Your task to perform on an android device: open a new tab in the chrome app Image 0: 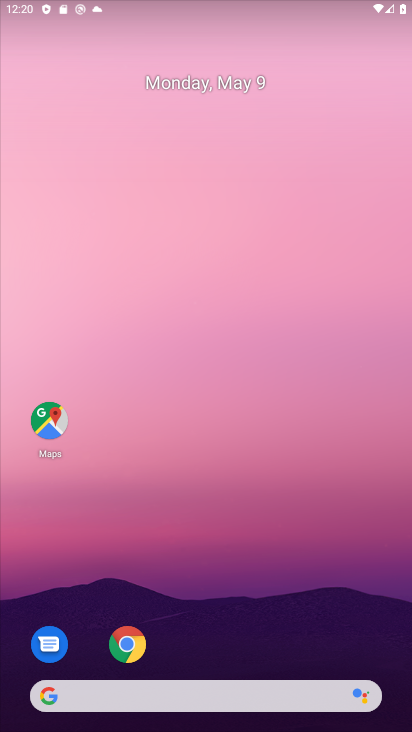
Step 0: drag from (261, 450) to (130, 86)
Your task to perform on an android device: open a new tab in the chrome app Image 1: 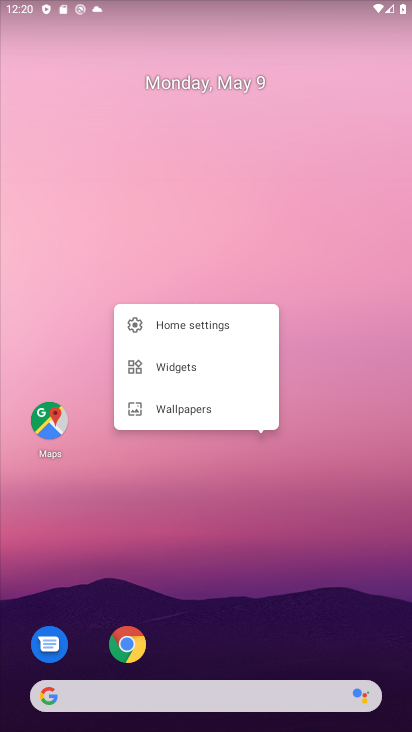
Step 1: drag from (291, 616) to (77, 28)
Your task to perform on an android device: open a new tab in the chrome app Image 2: 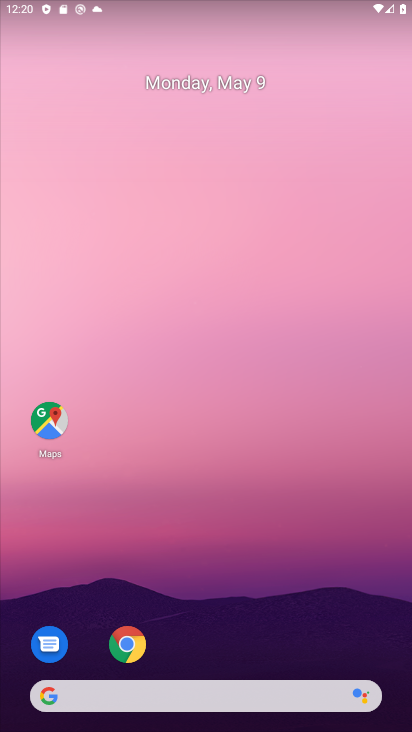
Step 2: drag from (284, 298) to (164, 0)
Your task to perform on an android device: open a new tab in the chrome app Image 3: 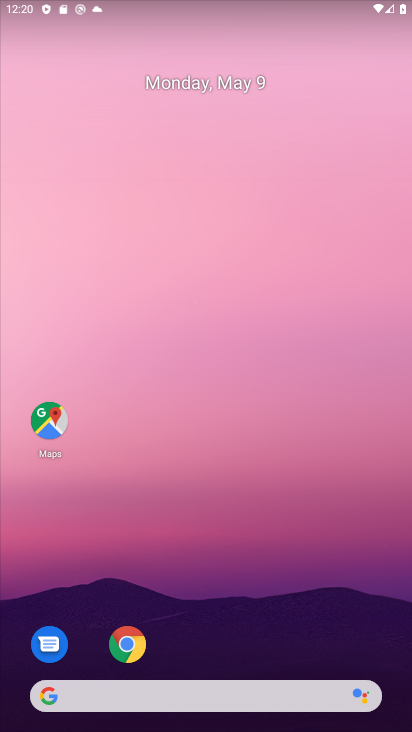
Step 3: drag from (214, 547) to (136, 13)
Your task to perform on an android device: open a new tab in the chrome app Image 4: 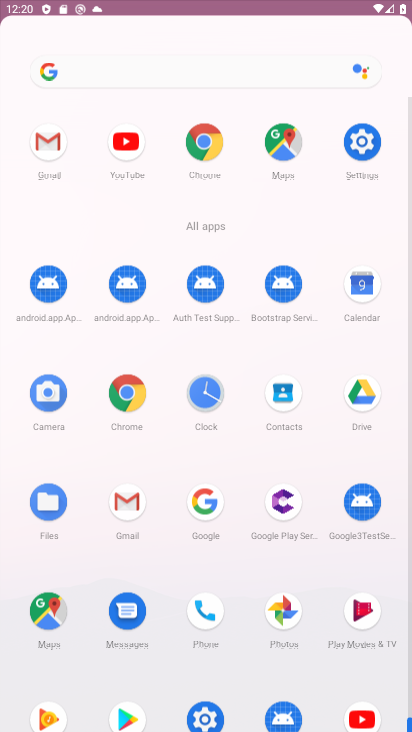
Step 4: drag from (203, 497) to (89, 13)
Your task to perform on an android device: open a new tab in the chrome app Image 5: 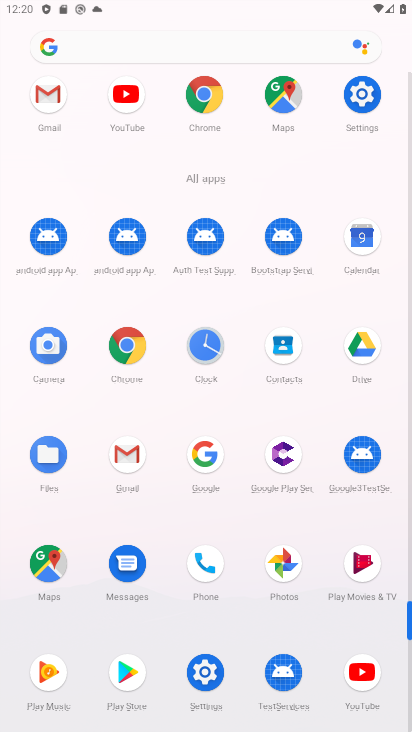
Step 5: click (209, 87)
Your task to perform on an android device: open a new tab in the chrome app Image 6: 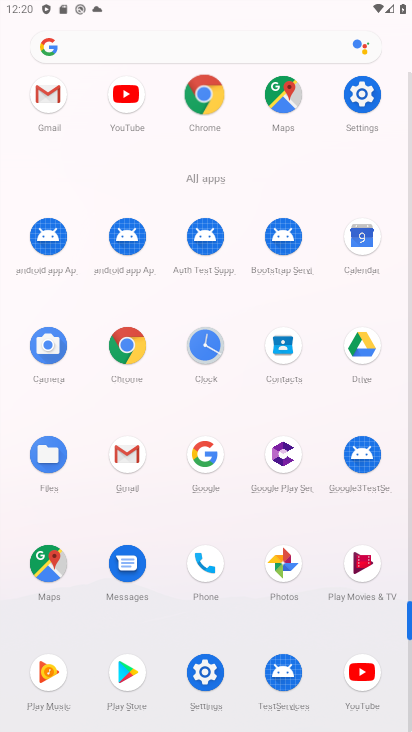
Step 6: click (209, 87)
Your task to perform on an android device: open a new tab in the chrome app Image 7: 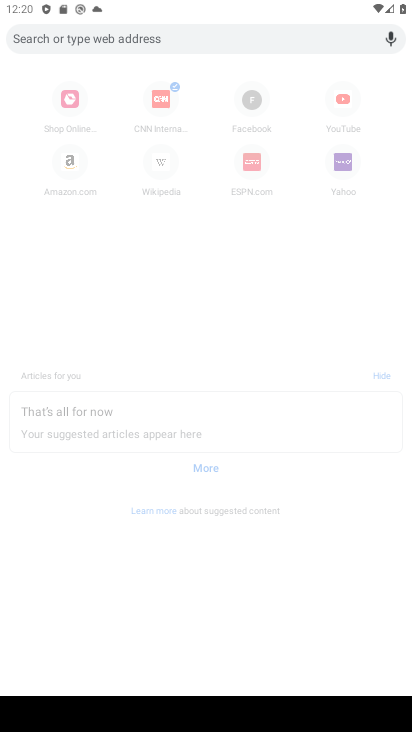
Step 7: click (38, 39)
Your task to perform on an android device: open a new tab in the chrome app Image 8: 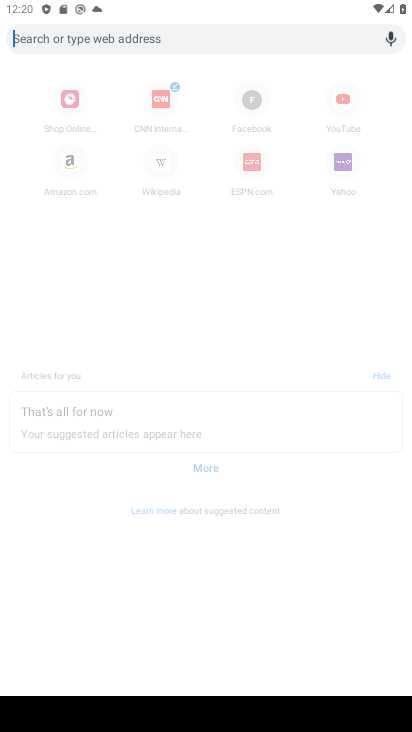
Step 8: click (27, 38)
Your task to perform on an android device: open a new tab in the chrome app Image 9: 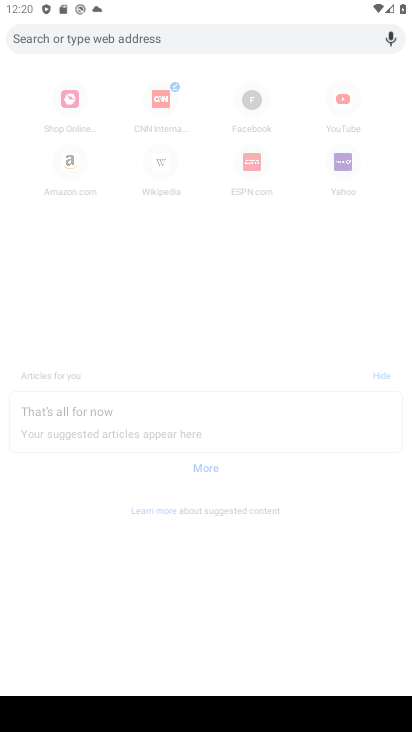
Step 9: click (27, 38)
Your task to perform on an android device: open a new tab in the chrome app Image 10: 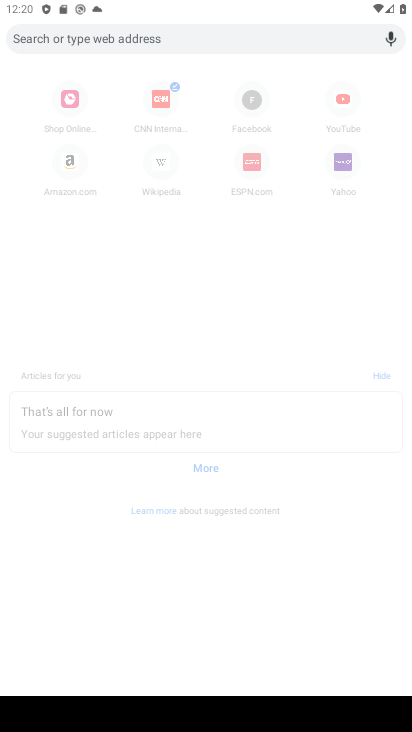
Step 10: click (27, 38)
Your task to perform on an android device: open a new tab in the chrome app Image 11: 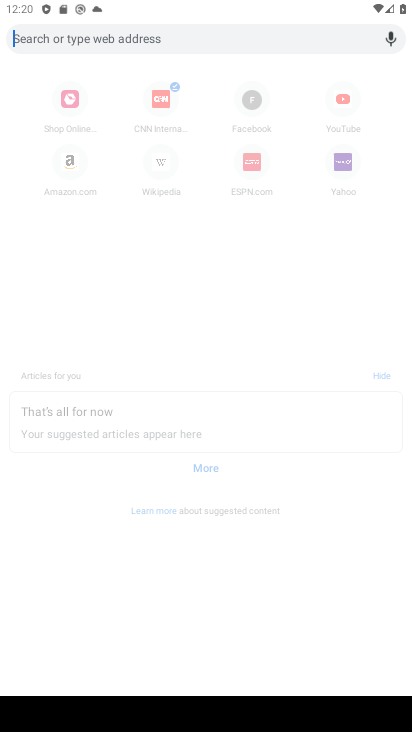
Step 11: click (27, 38)
Your task to perform on an android device: open a new tab in the chrome app Image 12: 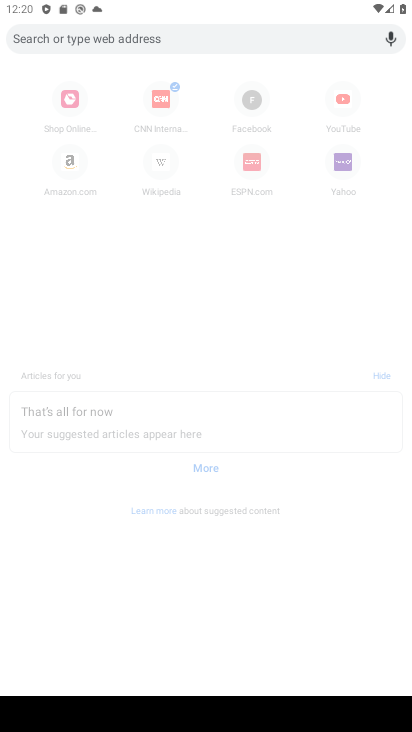
Step 12: click (27, 38)
Your task to perform on an android device: open a new tab in the chrome app Image 13: 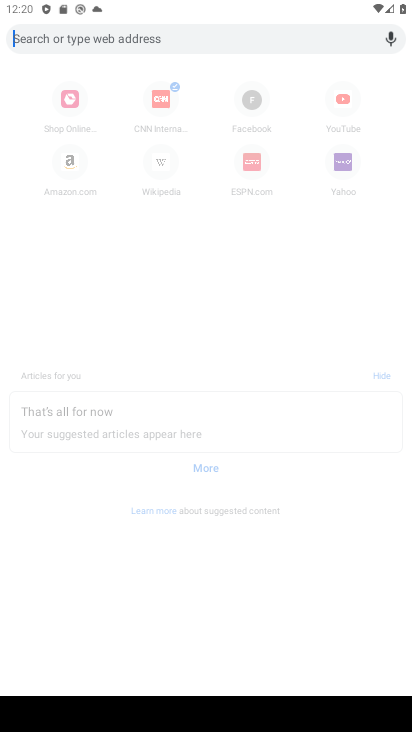
Step 13: click (27, 38)
Your task to perform on an android device: open a new tab in the chrome app Image 14: 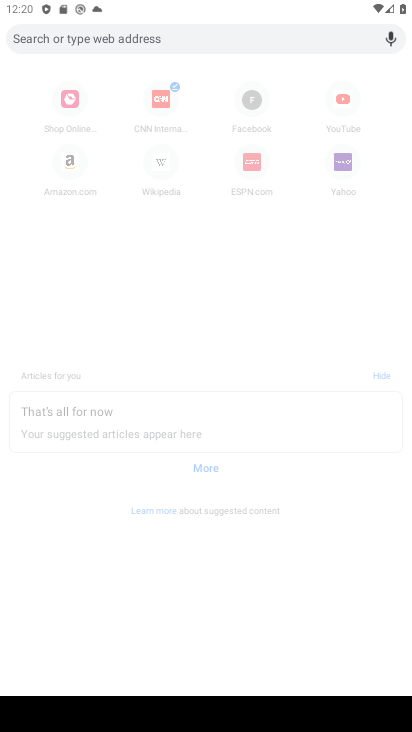
Step 14: click (27, 37)
Your task to perform on an android device: open a new tab in the chrome app Image 15: 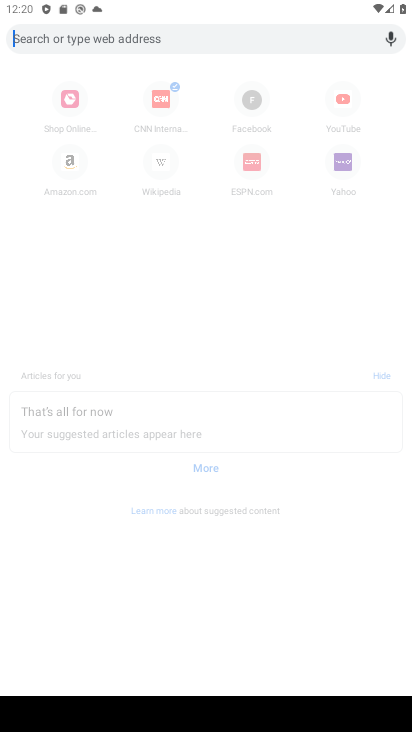
Step 15: click (115, 37)
Your task to perform on an android device: open a new tab in the chrome app Image 16: 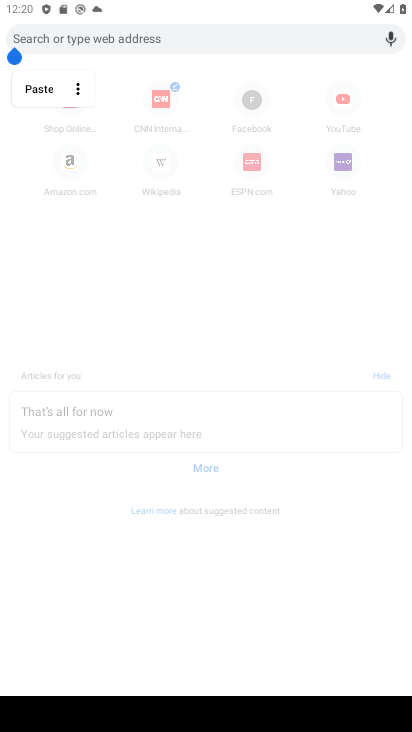
Step 16: press back button
Your task to perform on an android device: open a new tab in the chrome app Image 17: 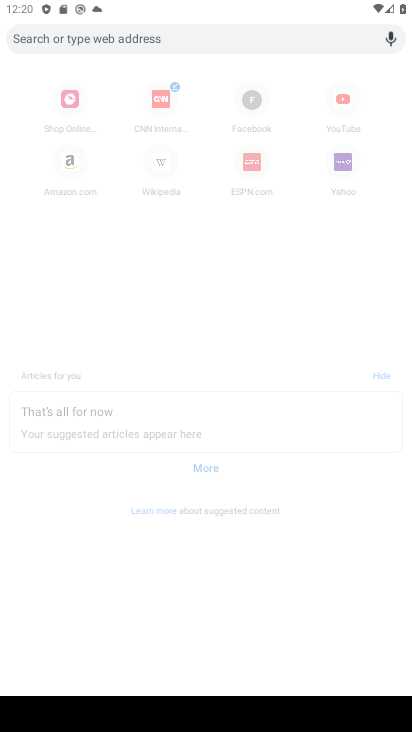
Step 17: press back button
Your task to perform on an android device: open a new tab in the chrome app Image 18: 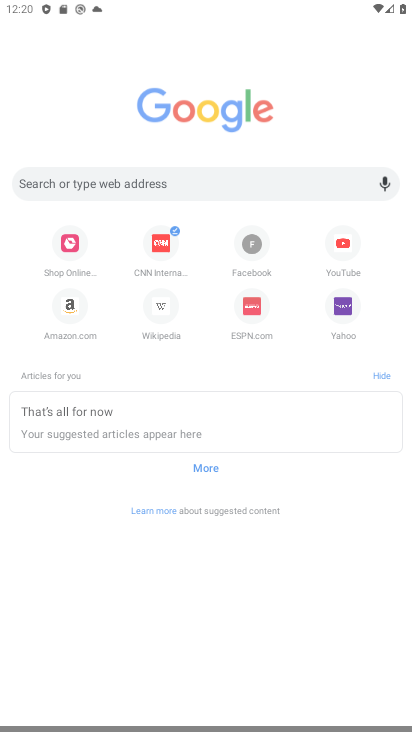
Step 18: press back button
Your task to perform on an android device: open a new tab in the chrome app Image 19: 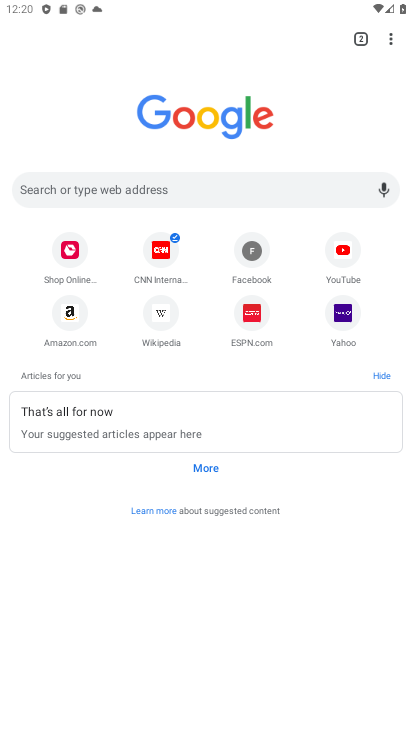
Step 19: press back button
Your task to perform on an android device: open a new tab in the chrome app Image 20: 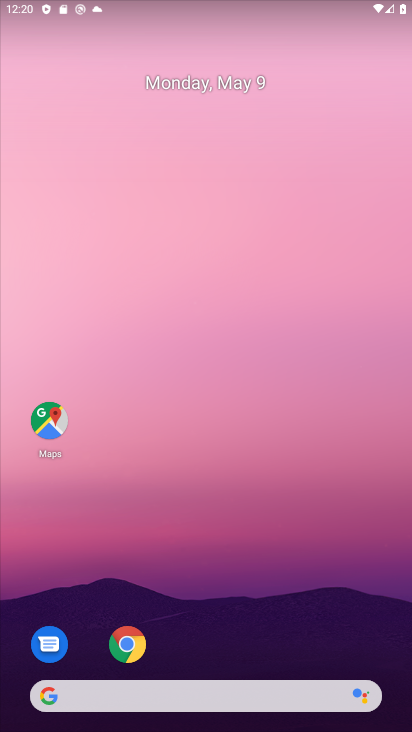
Step 20: click (392, 33)
Your task to perform on an android device: open a new tab in the chrome app Image 21: 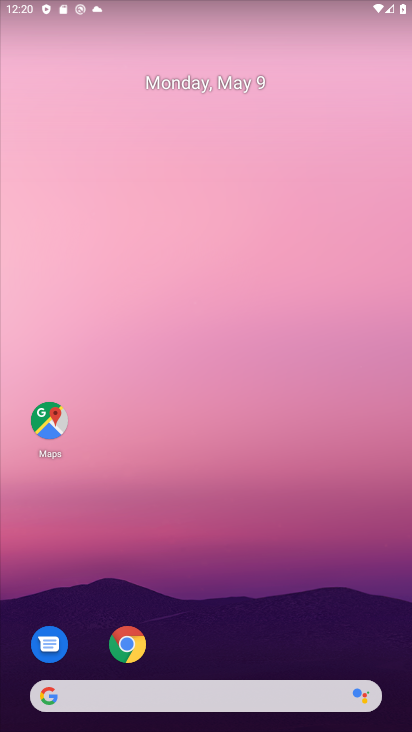
Step 21: drag from (313, 563) to (25, 8)
Your task to perform on an android device: open a new tab in the chrome app Image 22: 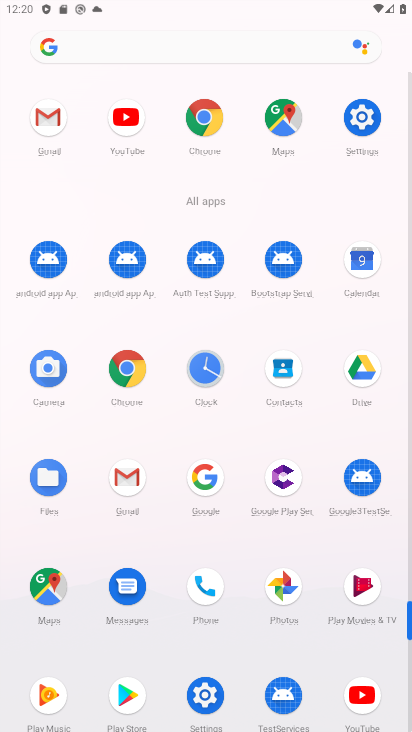
Step 22: click (195, 125)
Your task to perform on an android device: open a new tab in the chrome app Image 23: 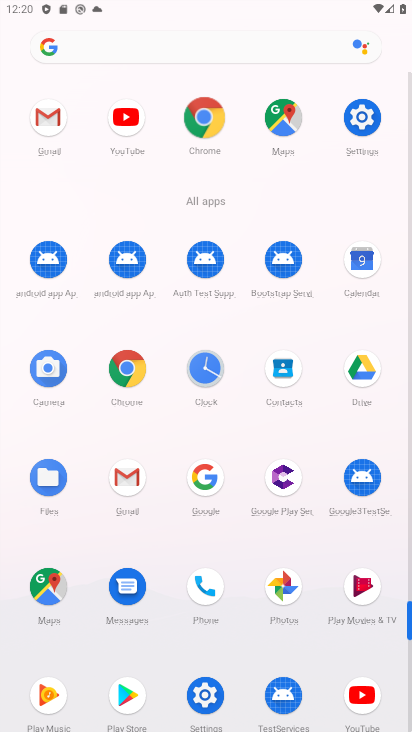
Step 23: click (196, 125)
Your task to perform on an android device: open a new tab in the chrome app Image 24: 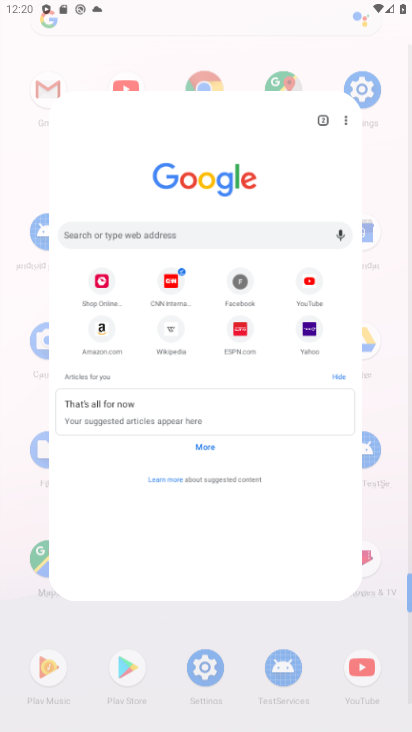
Step 24: click (197, 125)
Your task to perform on an android device: open a new tab in the chrome app Image 25: 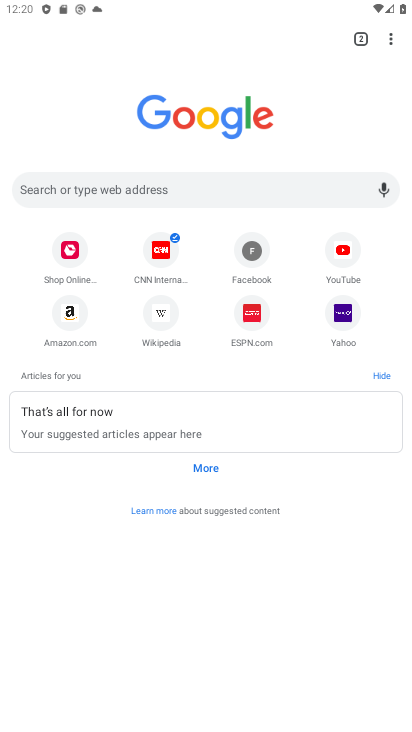
Step 25: drag from (386, 36) to (229, 74)
Your task to perform on an android device: open a new tab in the chrome app Image 26: 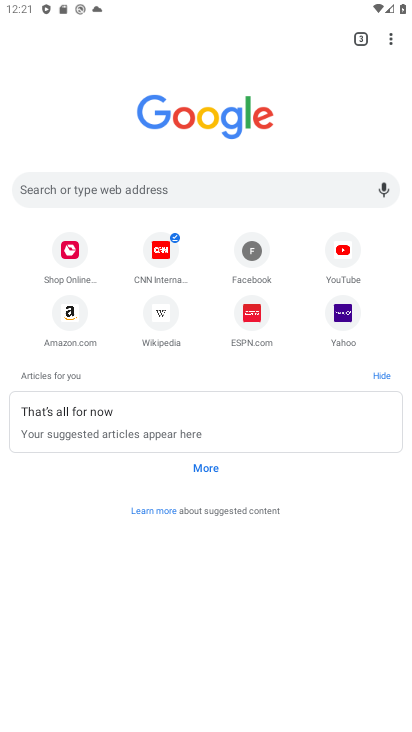
Step 26: press home button
Your task to perform on an android device: open a new tab in the chrome app Image 27: 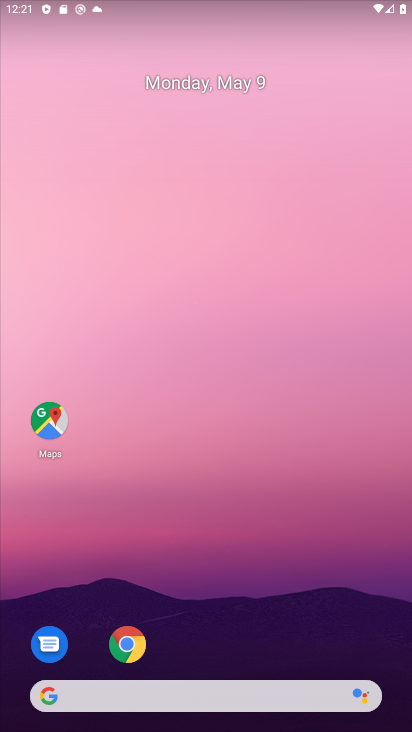
Step 27: drag from (351, 648) to (97, 71)
Your task to perform on an android device: open a new tab in the chrome app Image 28: 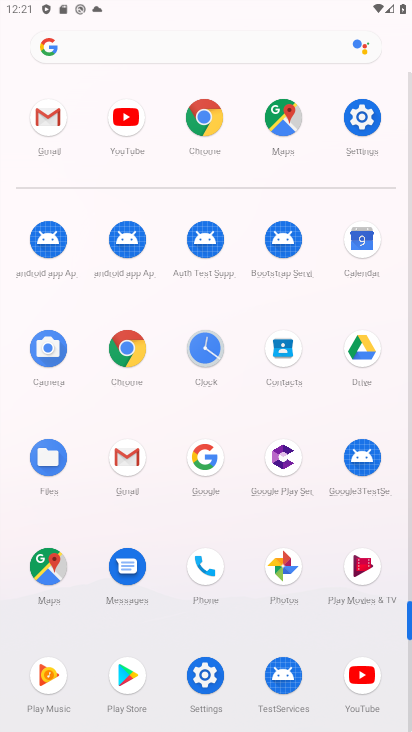
Step 28: click (206, 113)
Your task to perform on an android device: open a new tab in the chrome app Image 29: 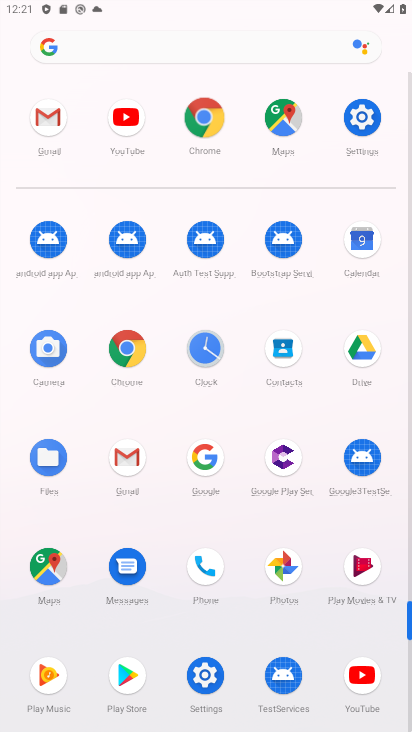
Step 29: click (206, 113)
Your task to perform on an android device: open a new tab in the chrome app Image 30: 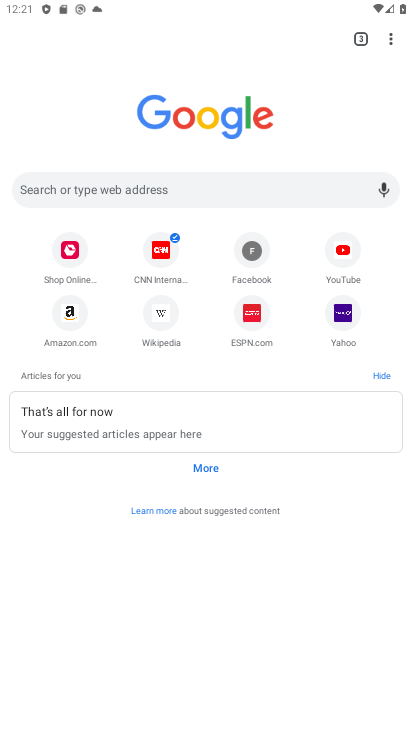
Step 30: click (392, 40)
Your task to perform on an android device: open a new tab in the chrome app Image 31: 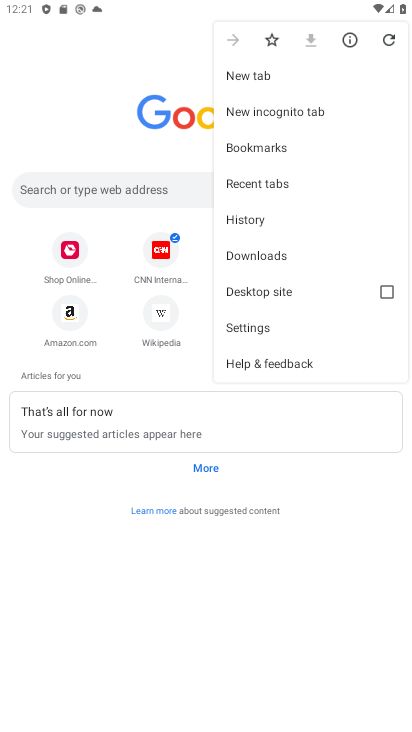
Step 31: click (245, 74)
Your task to perform on an android device: open a new tab in the chrome app Image 32: 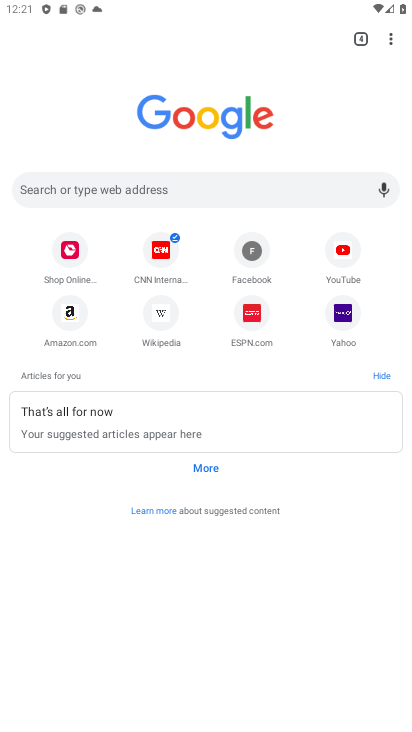
Step 32: task complete